Your task to perform on an android device: What's the weather like in Moscow? Image 0: 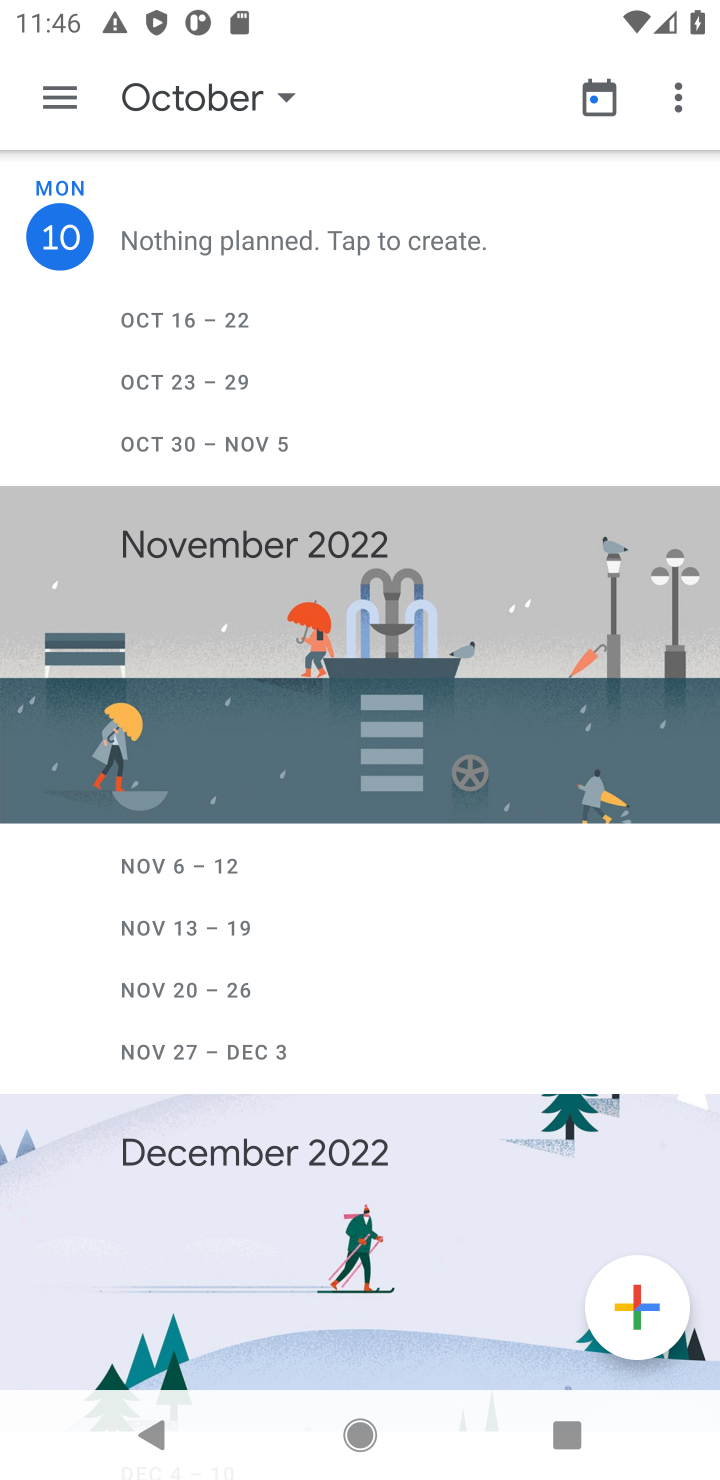
Step 0: press home button
Your task to perform on an android device: What's the weather like in Moscow? Image 1: 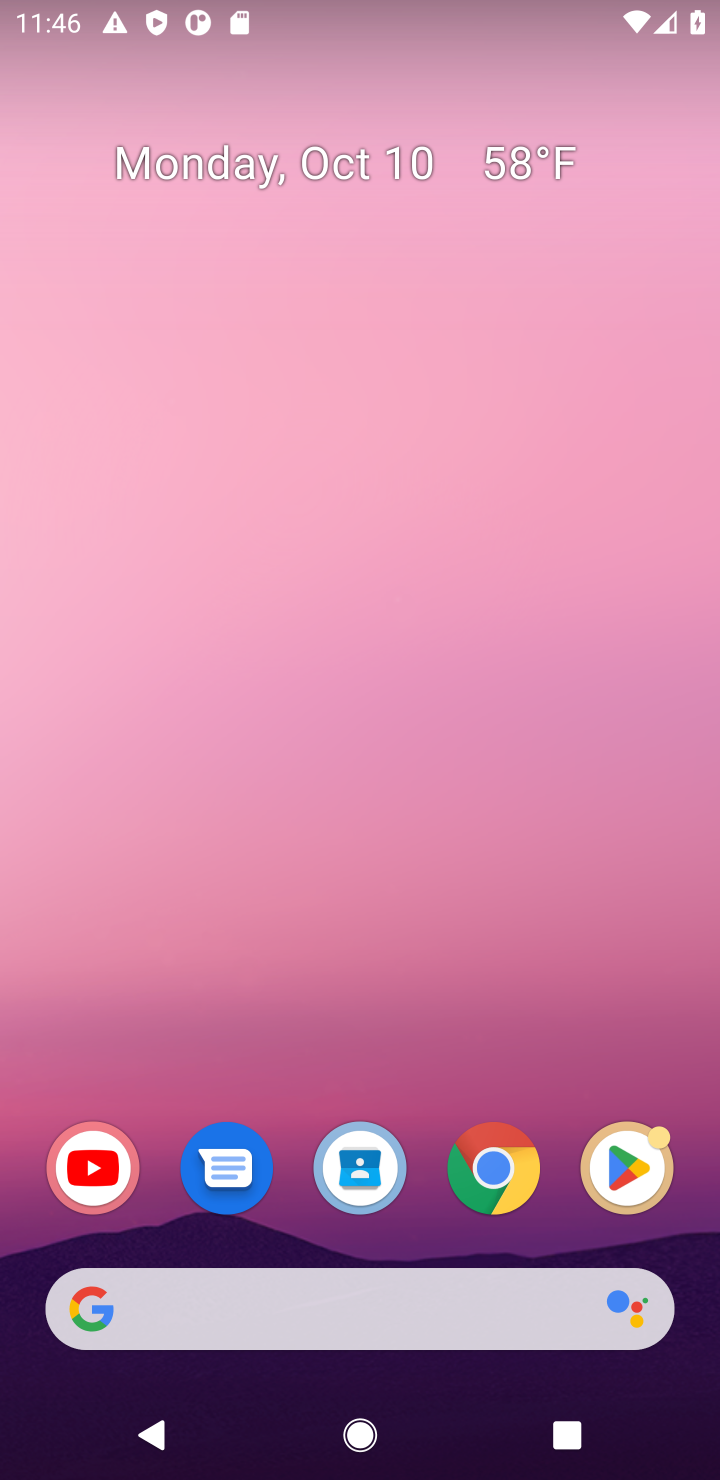
Step 1: click (451, 1300)
Your task to perform on an android device: What's the weather like in Moscow? Image 2: 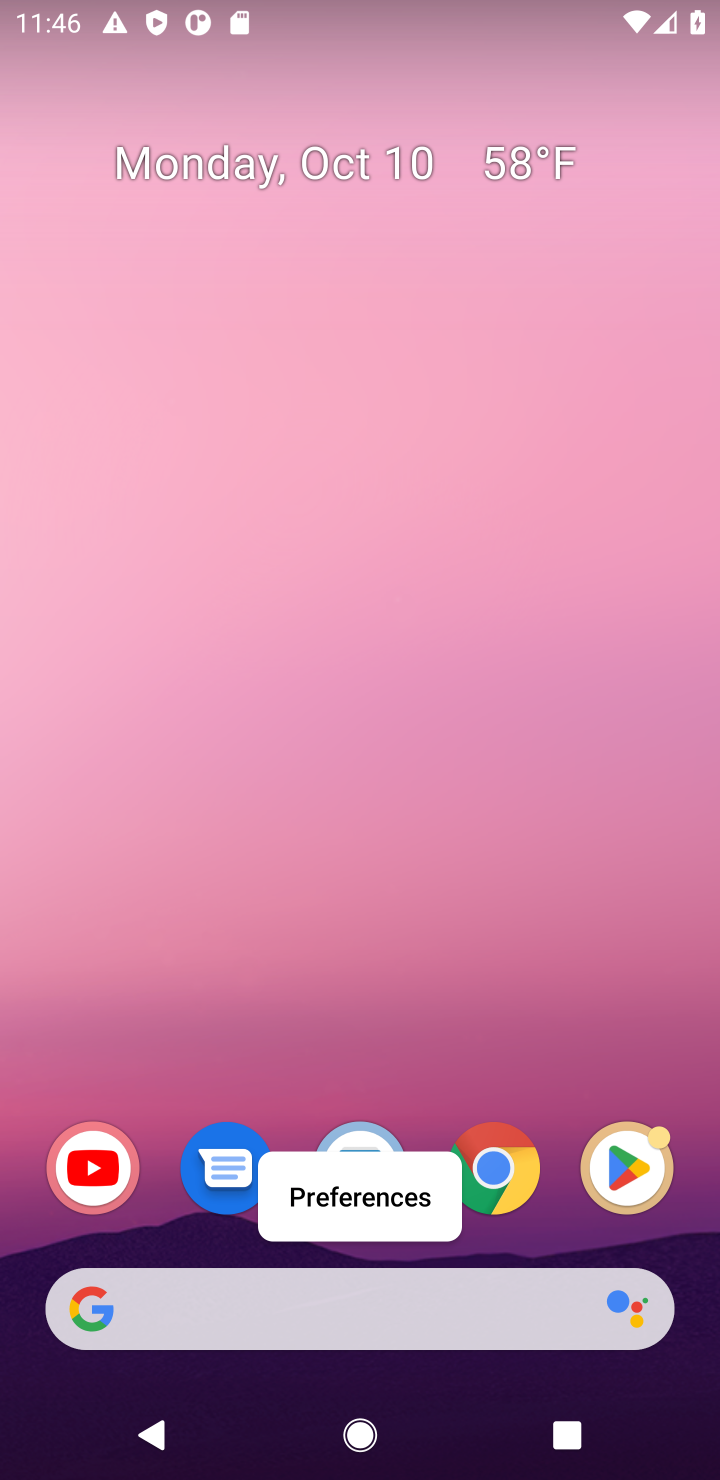
Step 2: click (284, 1315)
Your task to perform on an android device: What's the weather like in Moscow? Image 3: 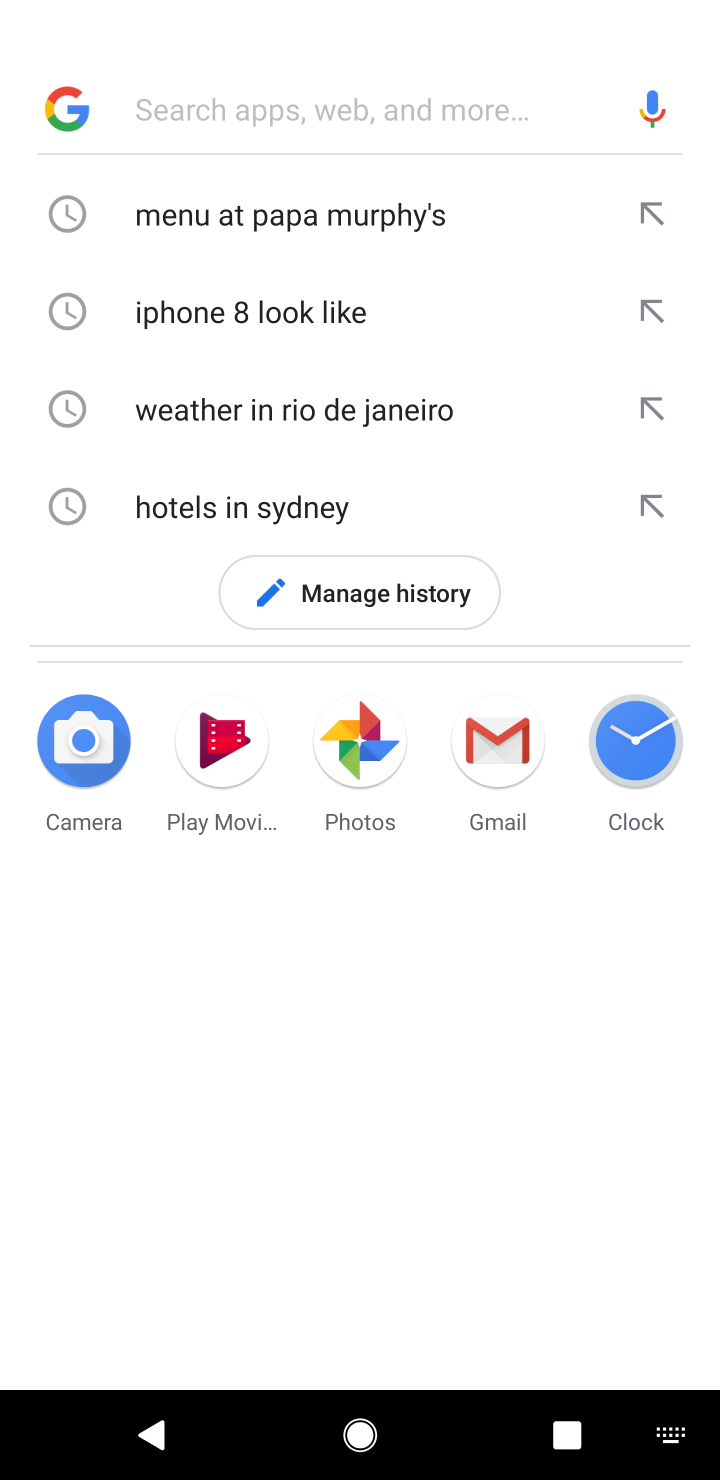
Step 3: type "weather like in Moscow"
Your task to perform on an android device: What's the weather like in Moscow? Image 4: 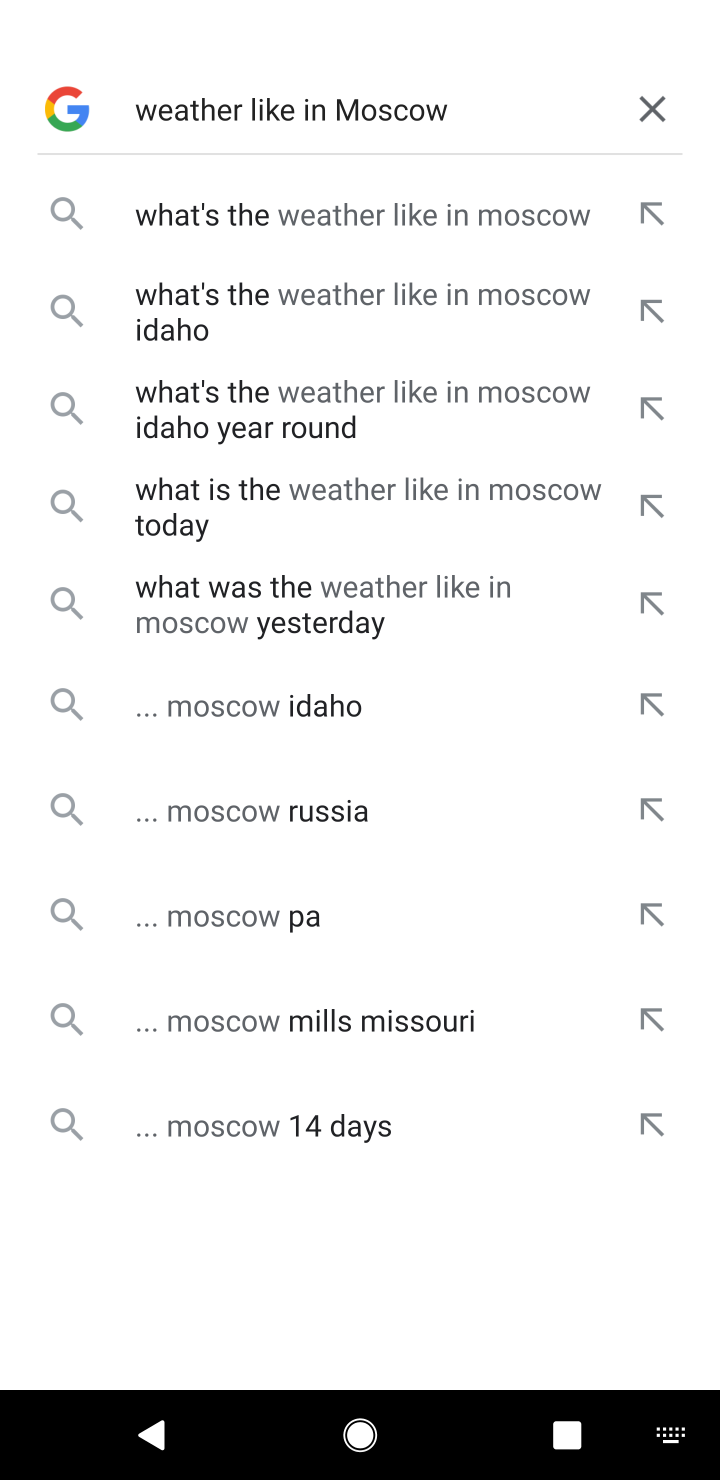
Step 4: type ""
Your task to perform on an android device: What's the weather like in Moscow? Image 5: 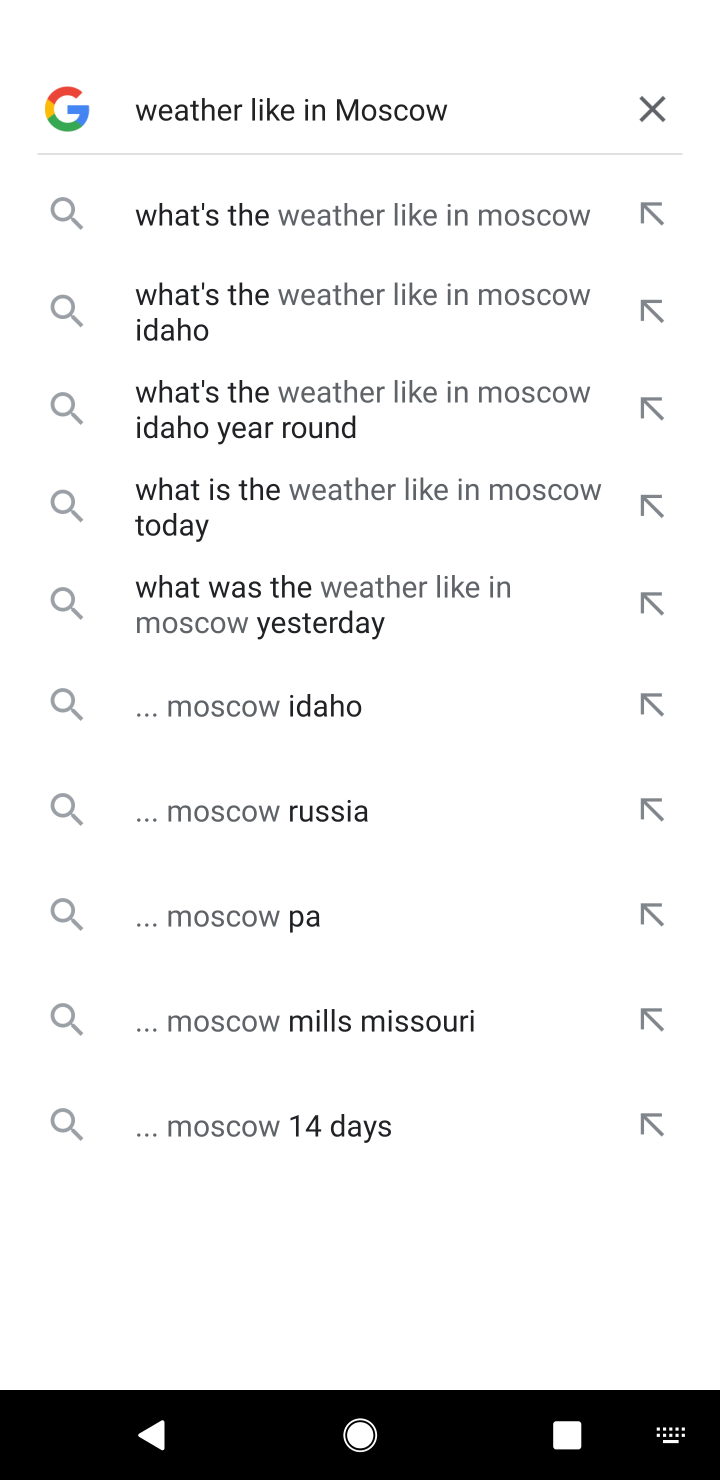
Step 5: click (516, 222)
Your task to perform on an android device: What's the weather like in Moscow? Image 6: 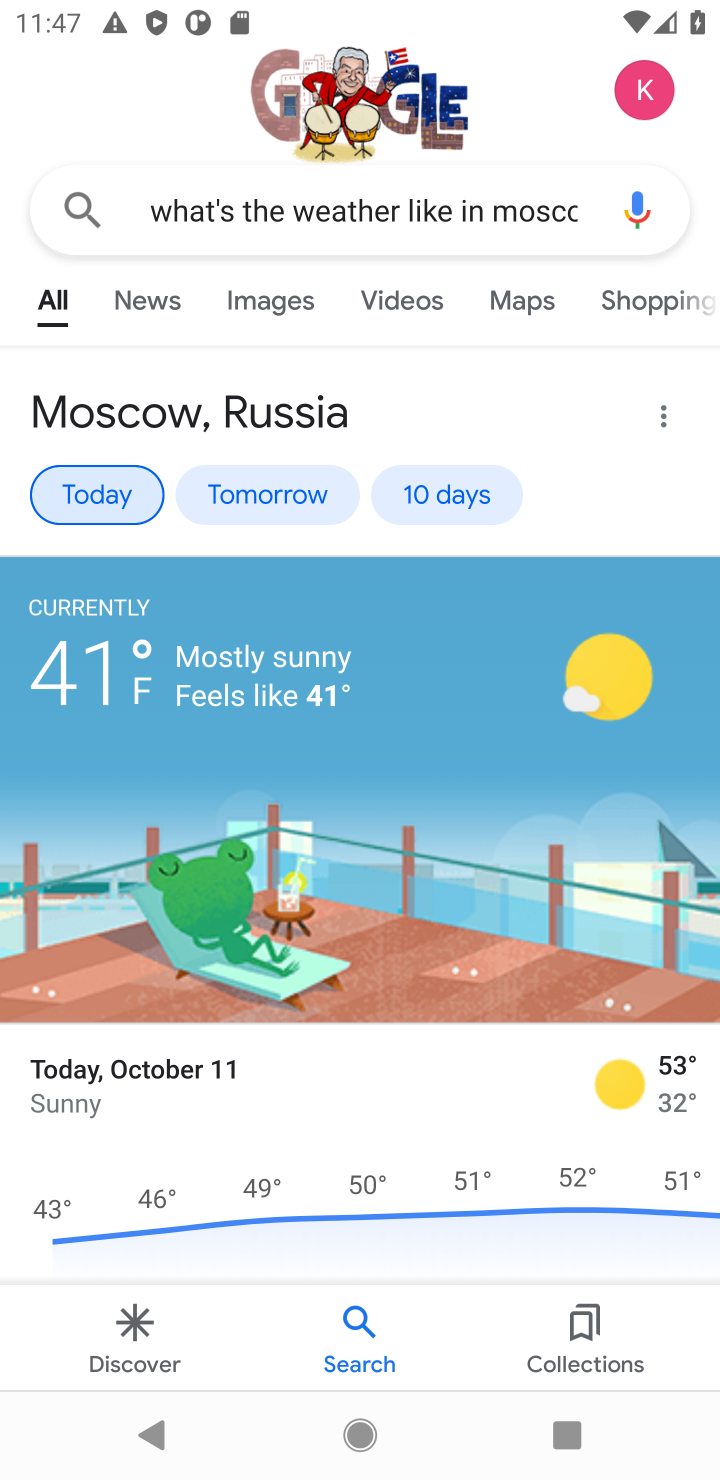
Step 6: task complete